Your task to perform on an android device: choose inbox layout in the gmail app Image 0: 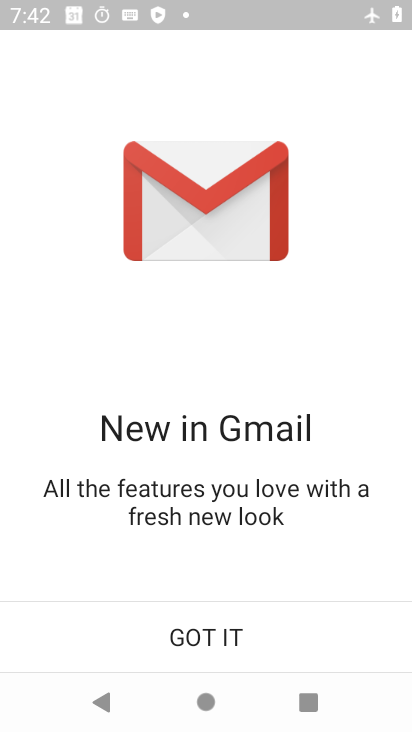
Step 0: click (228, 624)
Your task to perform on an android device: choose inbox layout in the gmail app Image 1: 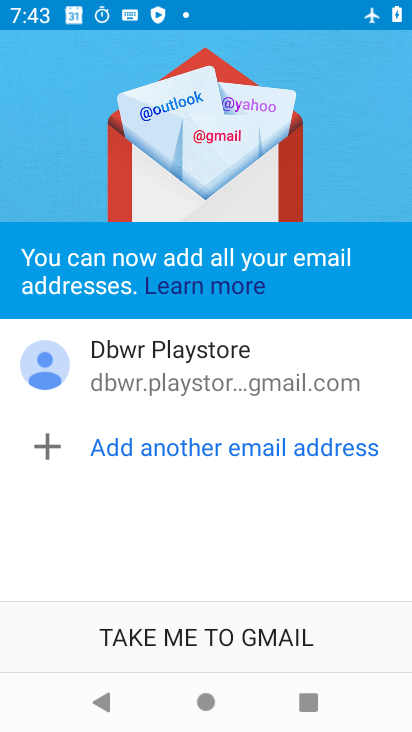
Step 1: click (232, 631)
Your task to perform on an android device: choose inbox layout in the gmail app Image 2: 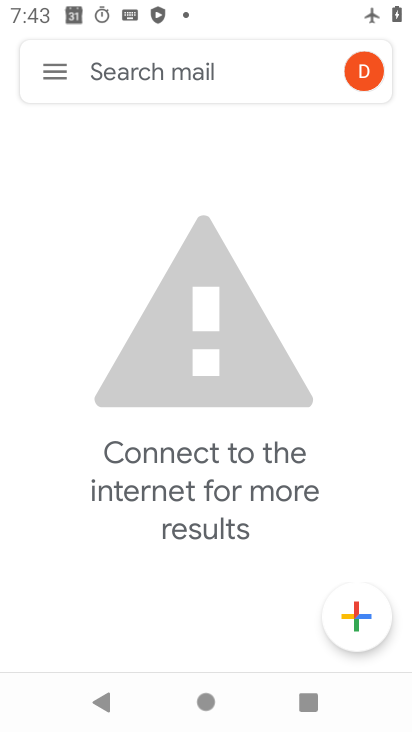
Step 2: click (62, 65)
Your task to perform on an android device: choose inbox layout in the gmail app Image 3: 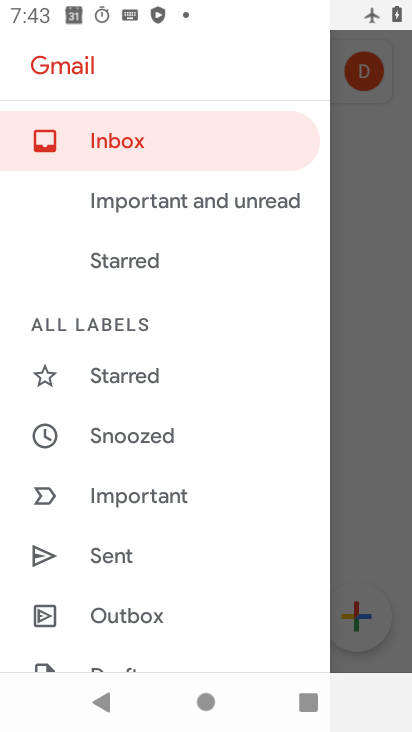
Step 3: drag from (139, 600) to (237, 161)
Your task to perform on an android device: choose inbox layout in the gmail app Image 4: 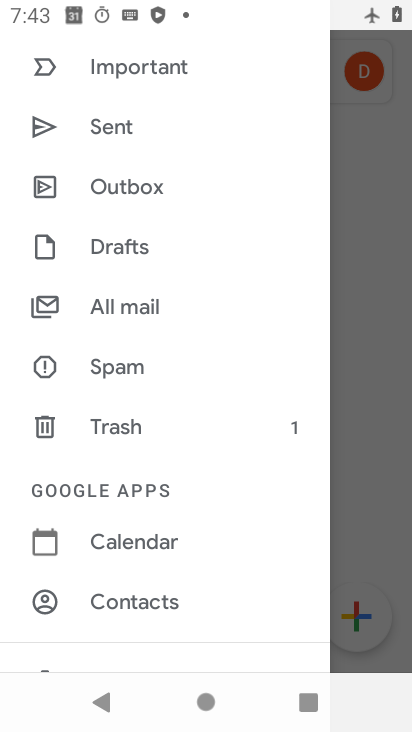
Step 4: drag from (133, 567) to (219, 185)
Your task to perform on an android device: choose inbox layout in the gmail app Image 5: 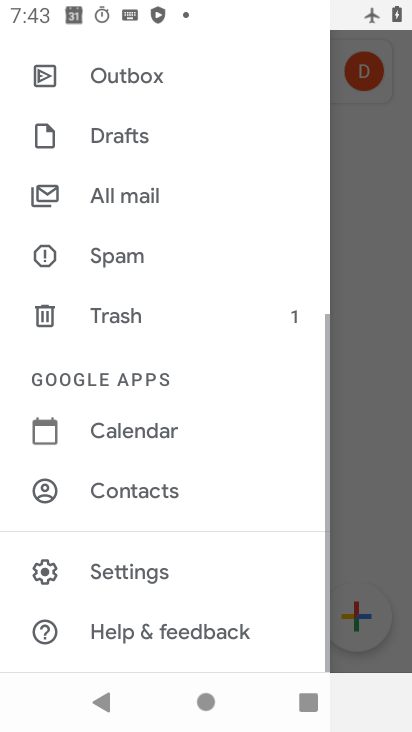
Step 5: click (116, 572)
Your task to perform on an android device: choose inbox layout in the gmail app Image 6: 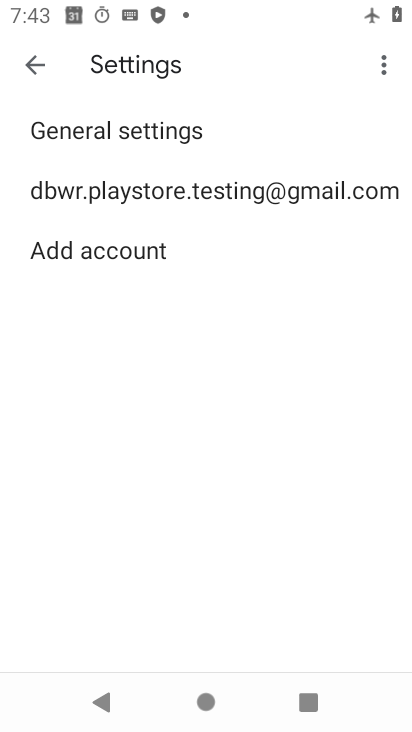
Step 6: click (163, 177)
Your task to perform on an android device: choose inbox layout in the gmail app Image 7: 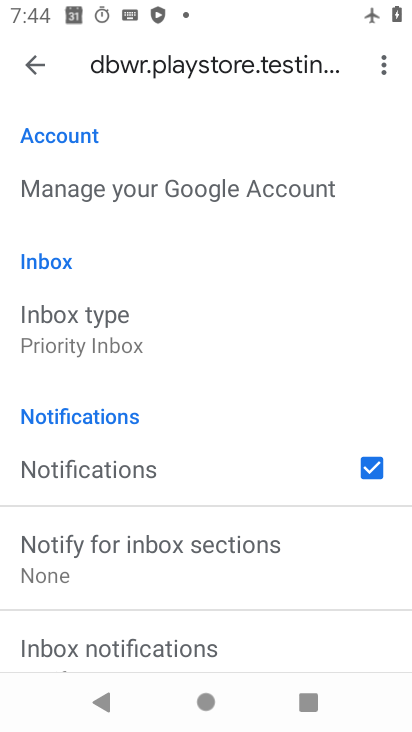
Step 7: click (114, 329)
Your task to perform on an android device: choose inbox layout in the gmail app Image 8: 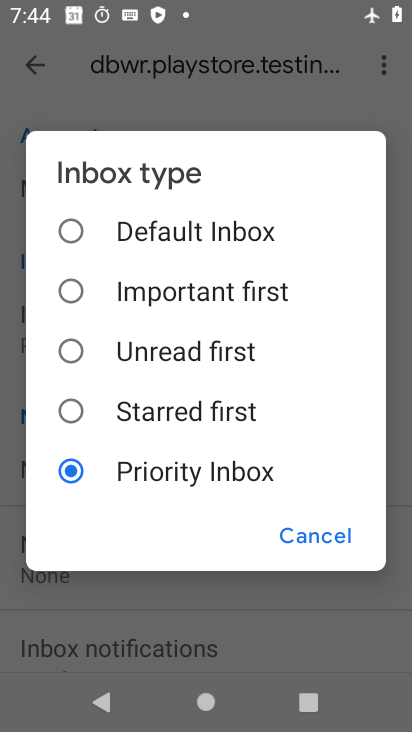
Step 8: click (171, 339)
Your task to perform on an android device: choose inbox layout in the gmail app Image 9: 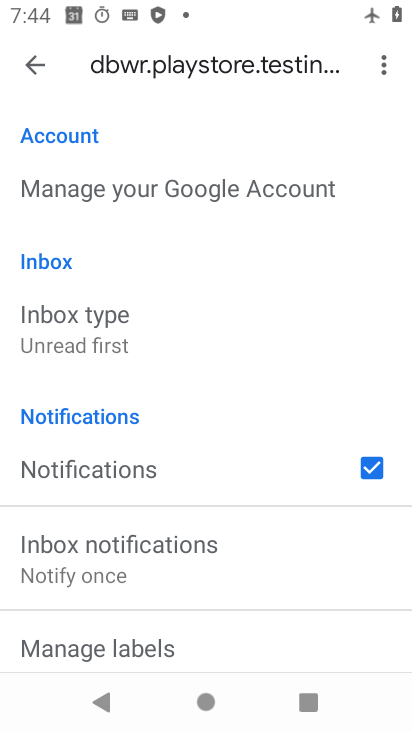
Step 9: task complete